Your task to perform on an android device: turn smart compose on in the gmail app Image 0: 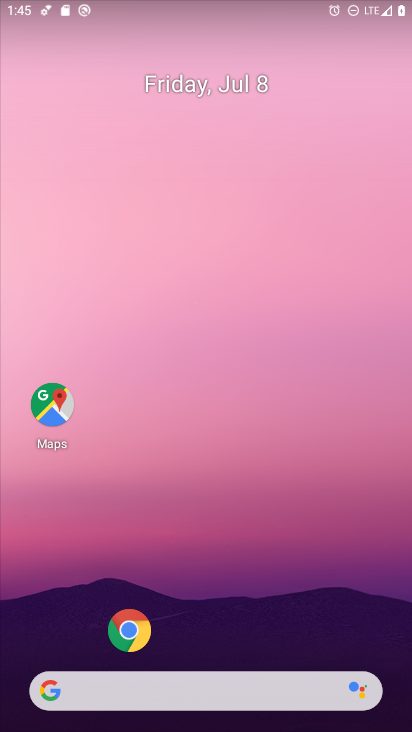
Step 0: drag from (263, 682) to (268, 180)
Your task to perform on an android device: turn smart compose on in the gmail app Image 1: 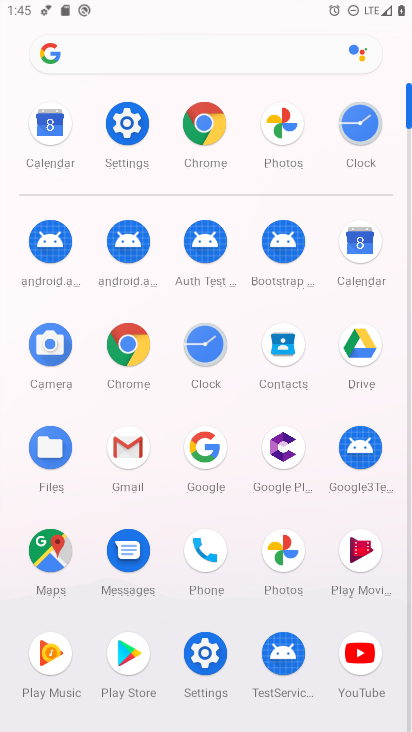
Step 1: click (130, 442)
Your task to perform on an android device: turn smart compose on in the gmail app Image 2: 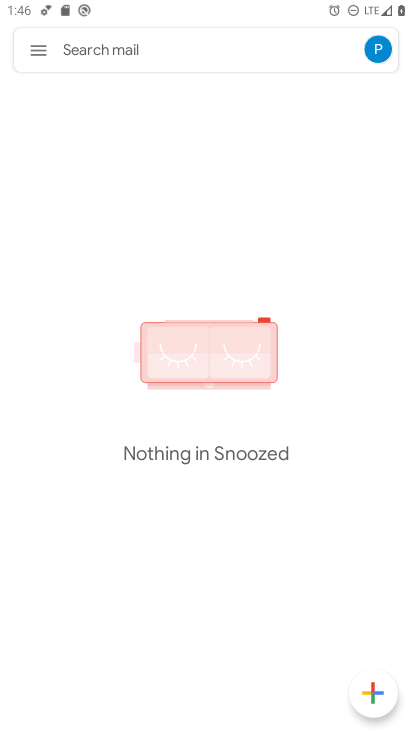
Step 2: click (34, 41)
Your task to perform on an android device: turn smart compose on in the gmail app Image 3: 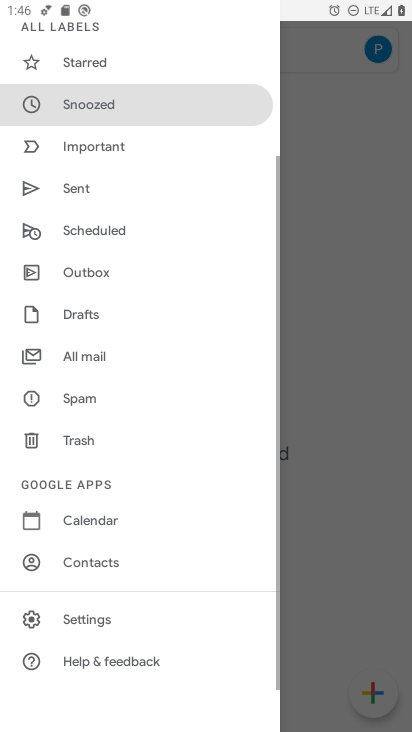
Step 3: click (124, 626)
Your task to perform on an android device: turn smart compose on in the gmail app Image 4: 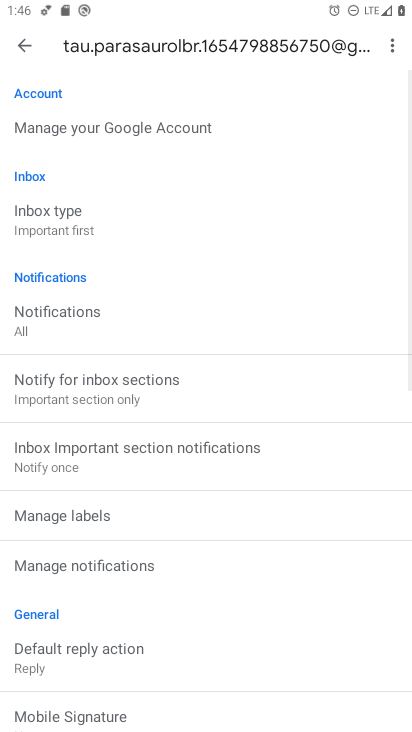
Step 4: task complete